Your task to perform on an android device: Go to privacy settings Image 0: 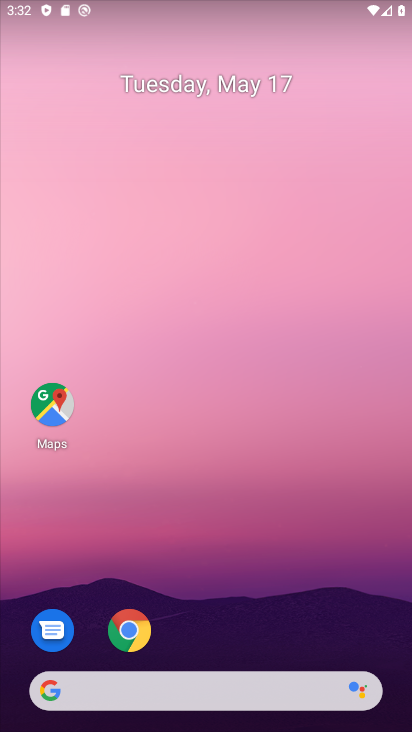
Step 0: click (134, 644)
Your task to perform on an android device: Go to privacy settings Image 1: 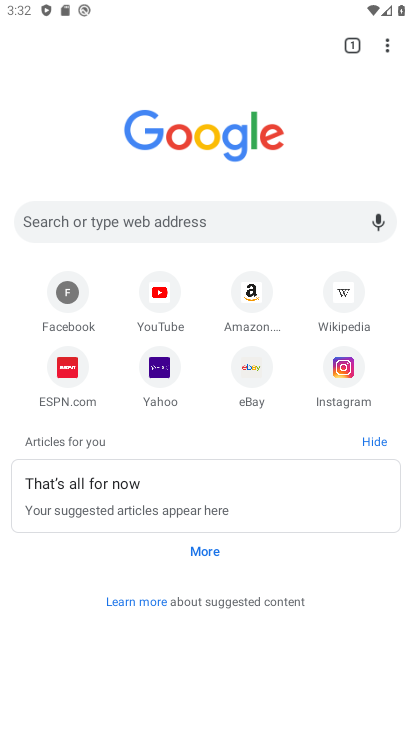
Step 1: drag from (390, 46) to (306, 371)
Your task to perform on an android device: Go to privacy settings Image 2: 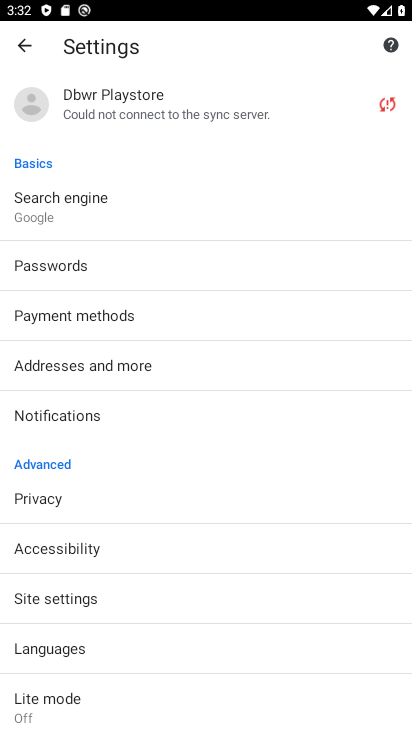
Step 2: click (105, 513)
Your task to perform on an android device: Go to privacy settings Image 3: 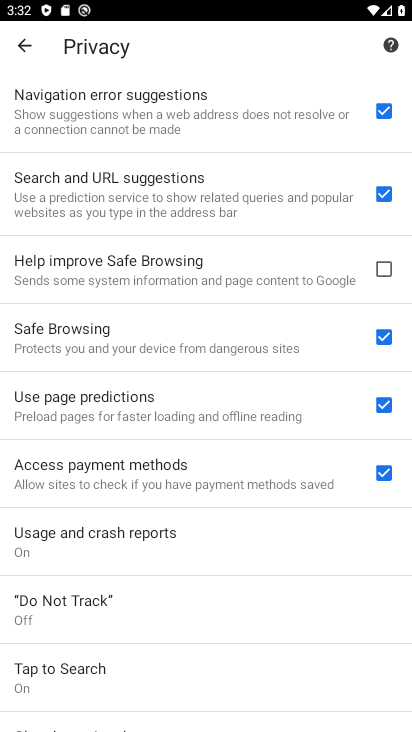
Step 3: task complete